Your task to perform on an android device: What is the recent news? Image 0: 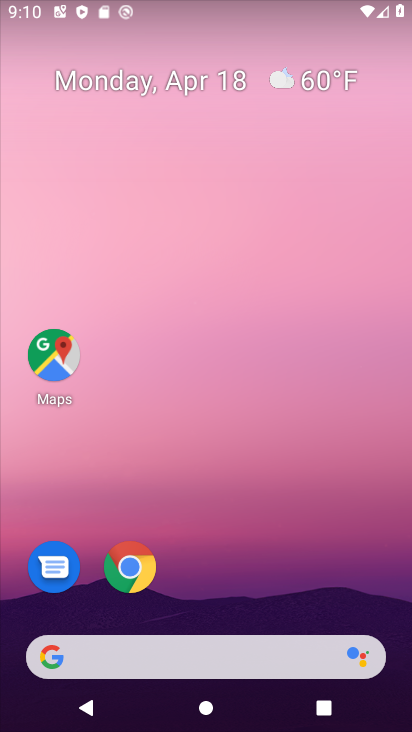
Step 0: click (153, 647)
Your task to perform on an android device: What is the recent news? Image 1: 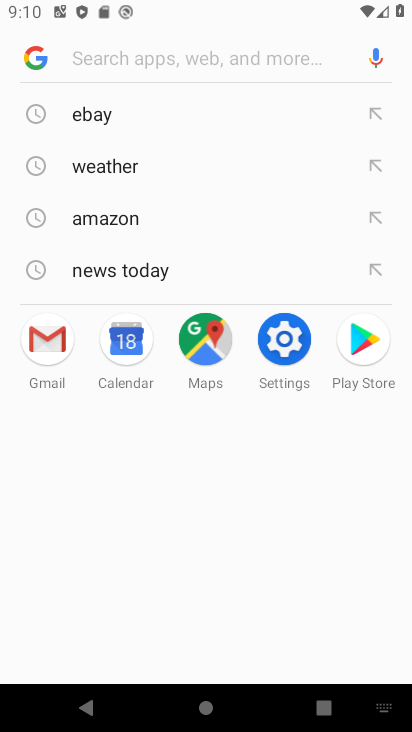
Step 1: type "news"
Your task to perform on an android device: What is the recent news? Image 2: 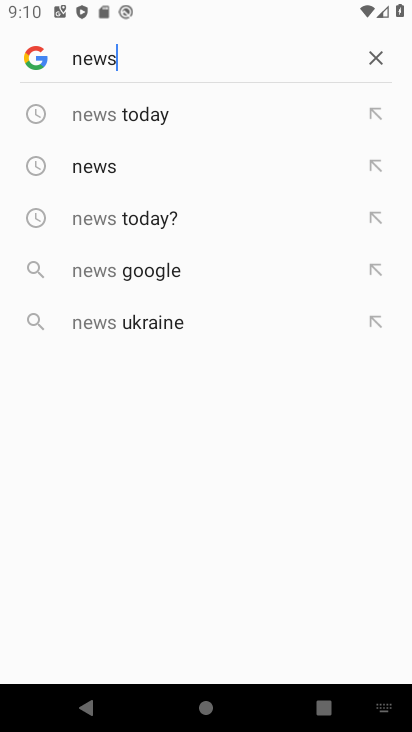
Step 2: click (132, 113)
Your task to perform on an android device: What is the recent news? Image 3: 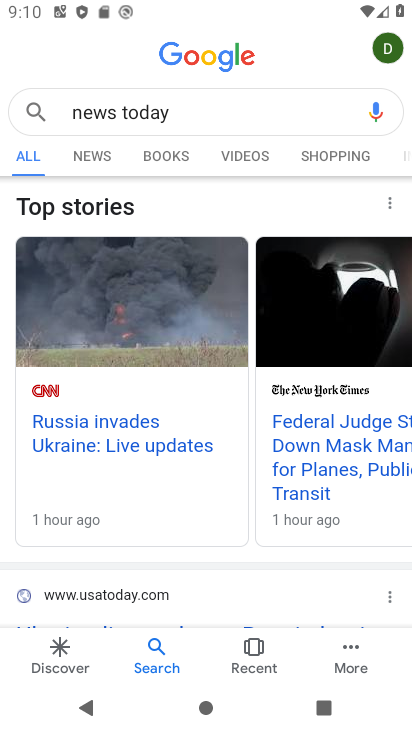
Step 3: task complete